Your task to perform on an android device: open a bookmark in the chrome app Image 0: 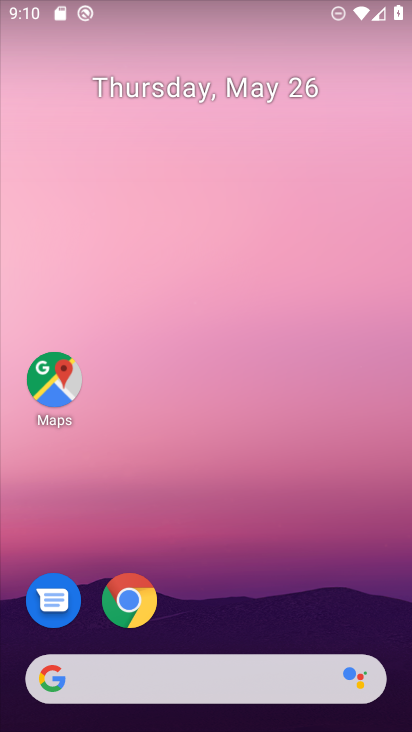
Step 0: click (127, 604)
Your task to perform on an android device: open a bookmark in the chrome app Image 1: 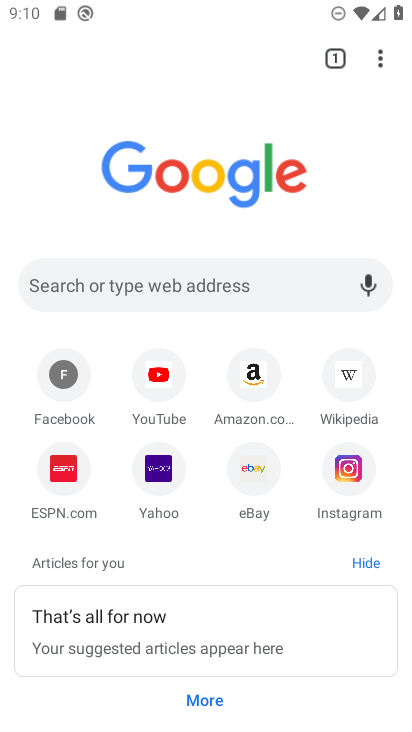
Step 1: click (382, 63)
Your task to perform on an android device: open a bookmark in the chrome app Image 2: 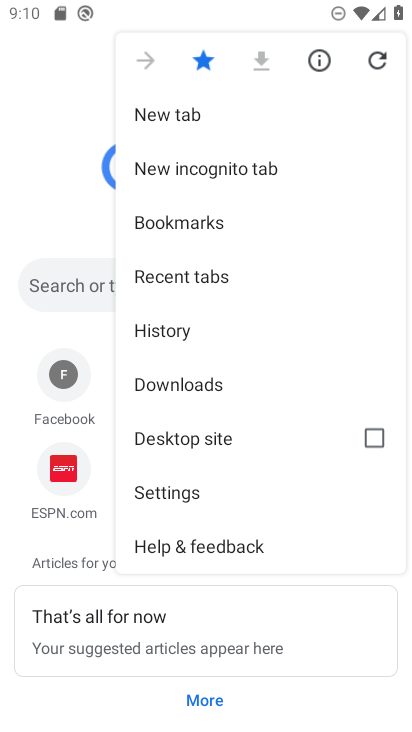
Step 2: click (184, 493)
Your task to perform on an android device: open a bookmark in the chrome app Image 3: 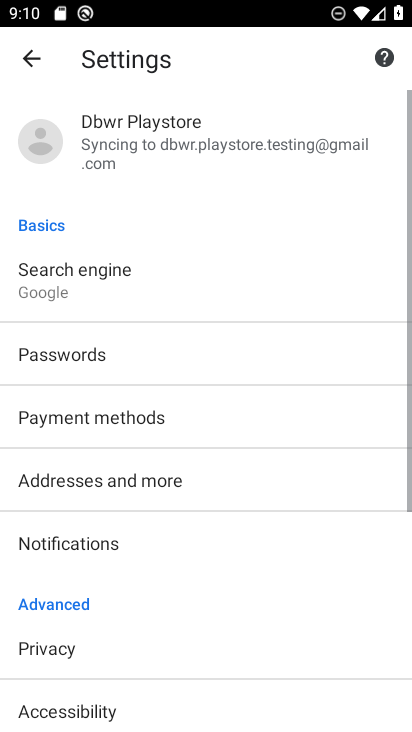
Step 3: press back button
Your task to perform on an android device: open a bookmark in the chrome app Image 4: 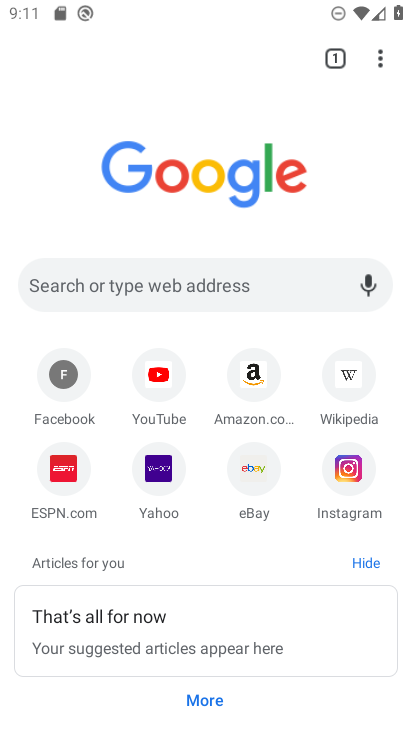
Step 4: click (381, 59)
Your task to perform on an android device: open a bookmark in the chrome app Image 5: 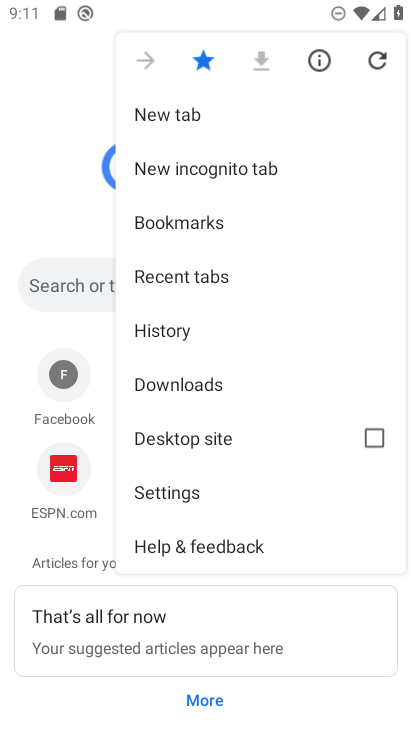
Step 5: click (169, 224)
Your task to perform on an android device: open a bookmark in the chrome app Image 6: 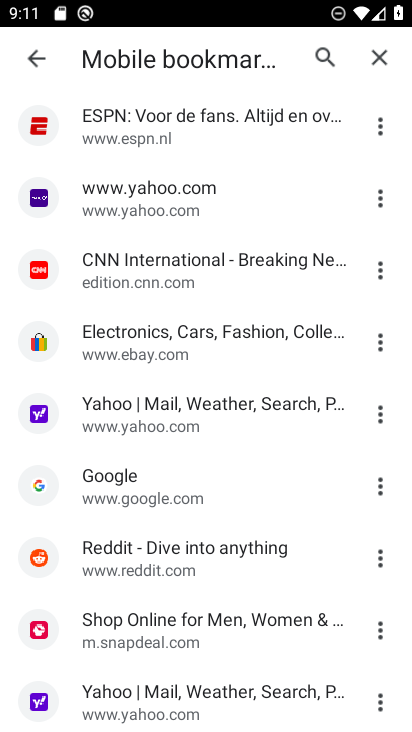
Step 6: task complete